Your task to perform on an android device: How do I get to the nearest grocery store? Image 0: 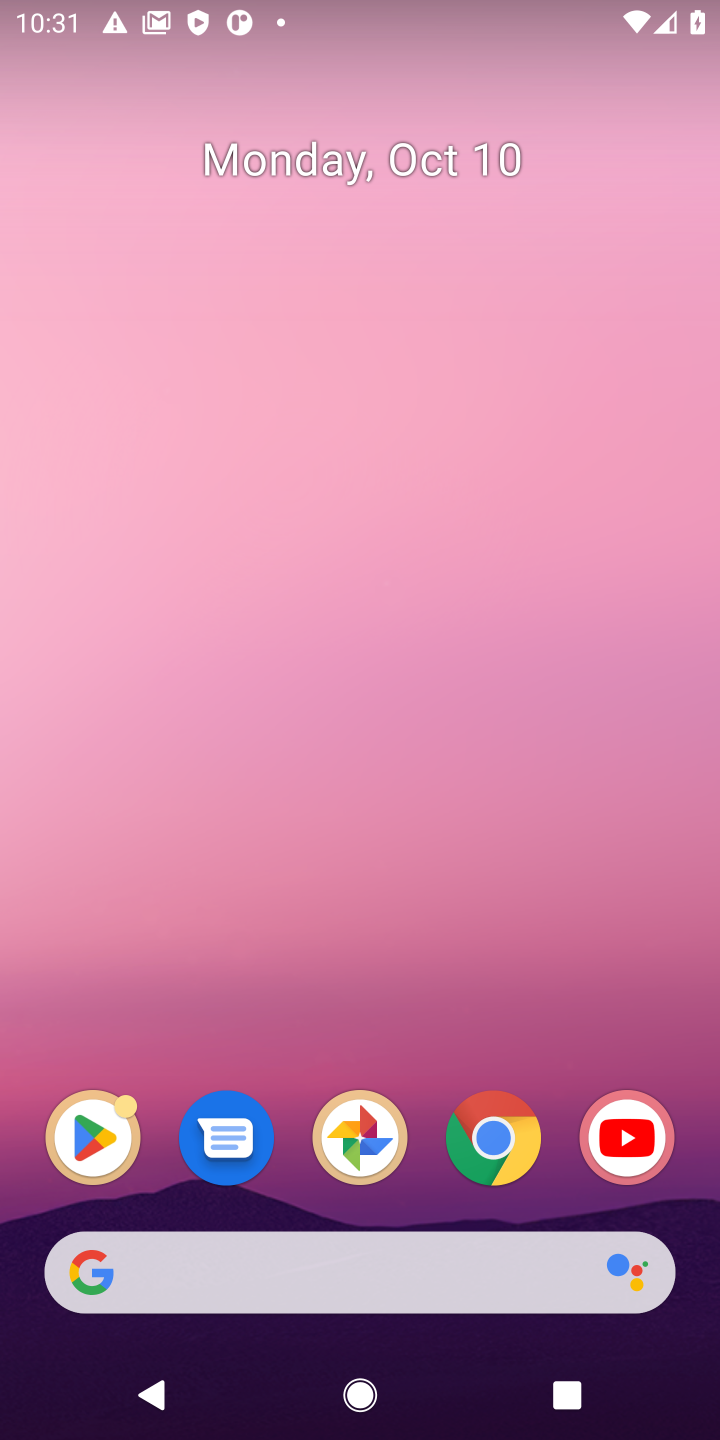
Step 0: click (259, 1245)
Your task to perform on an android device: How do I get to the nearest grocery store? Image 1: 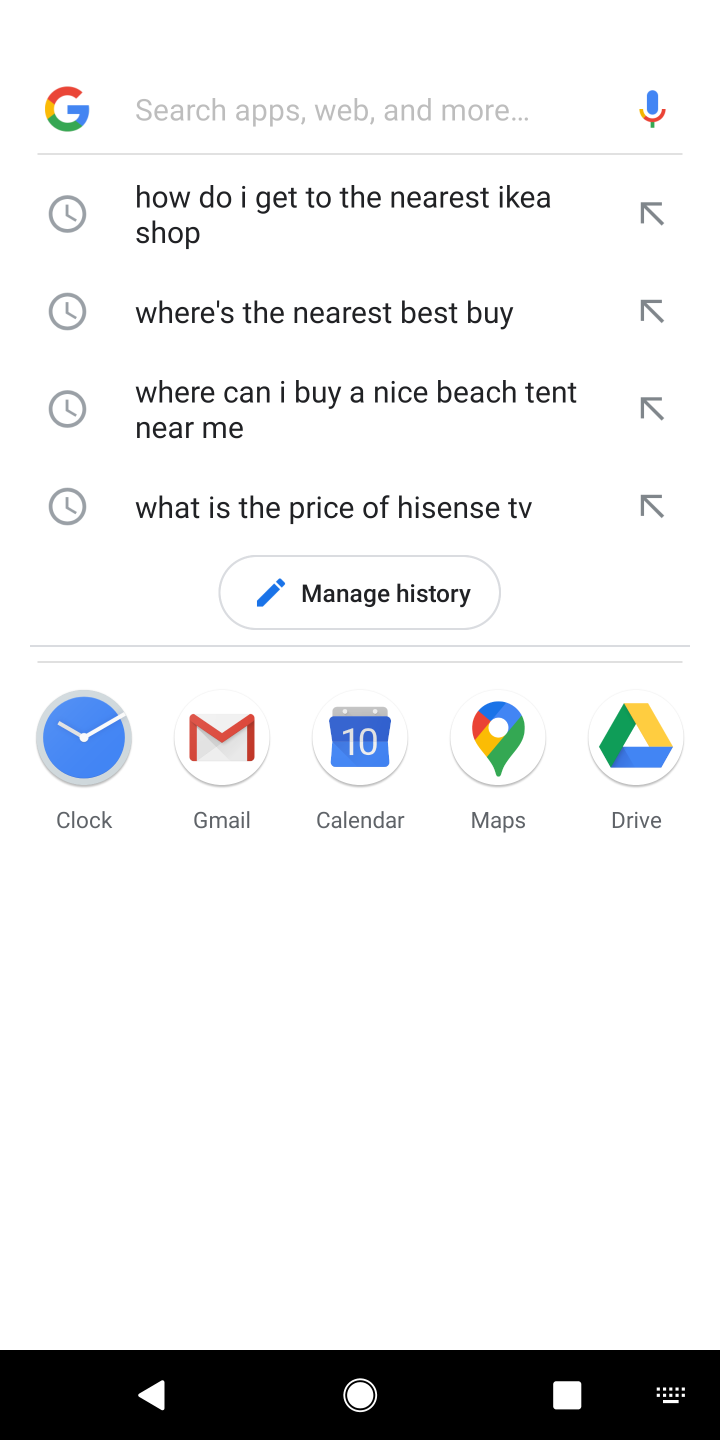
Step 1: type "How do I get to the nearest grocery store?"
Your task to perform on an android device: How do I get to the nearest grocery store? Image 2: 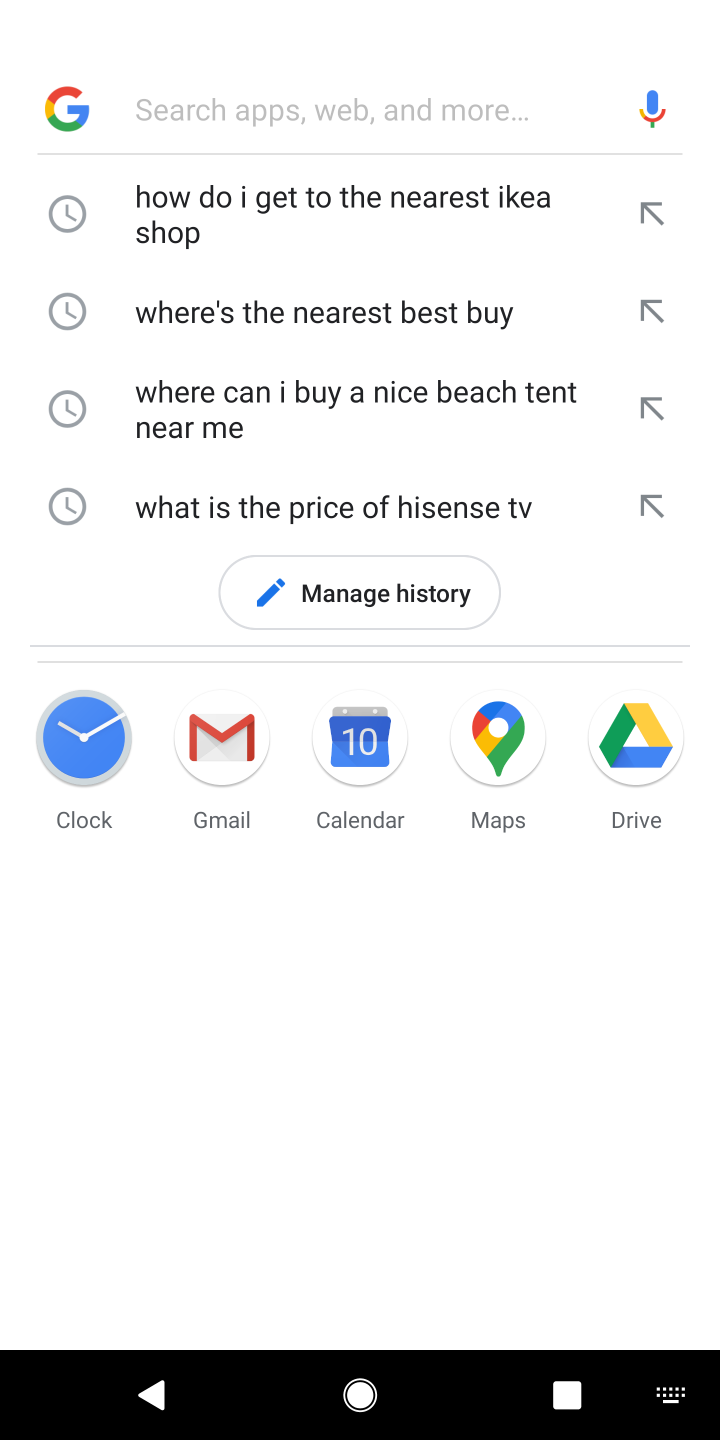
Step 2: click (297, 642)
Your task to perform on an android device: How do I get to the nearest grocery store? Image 3: 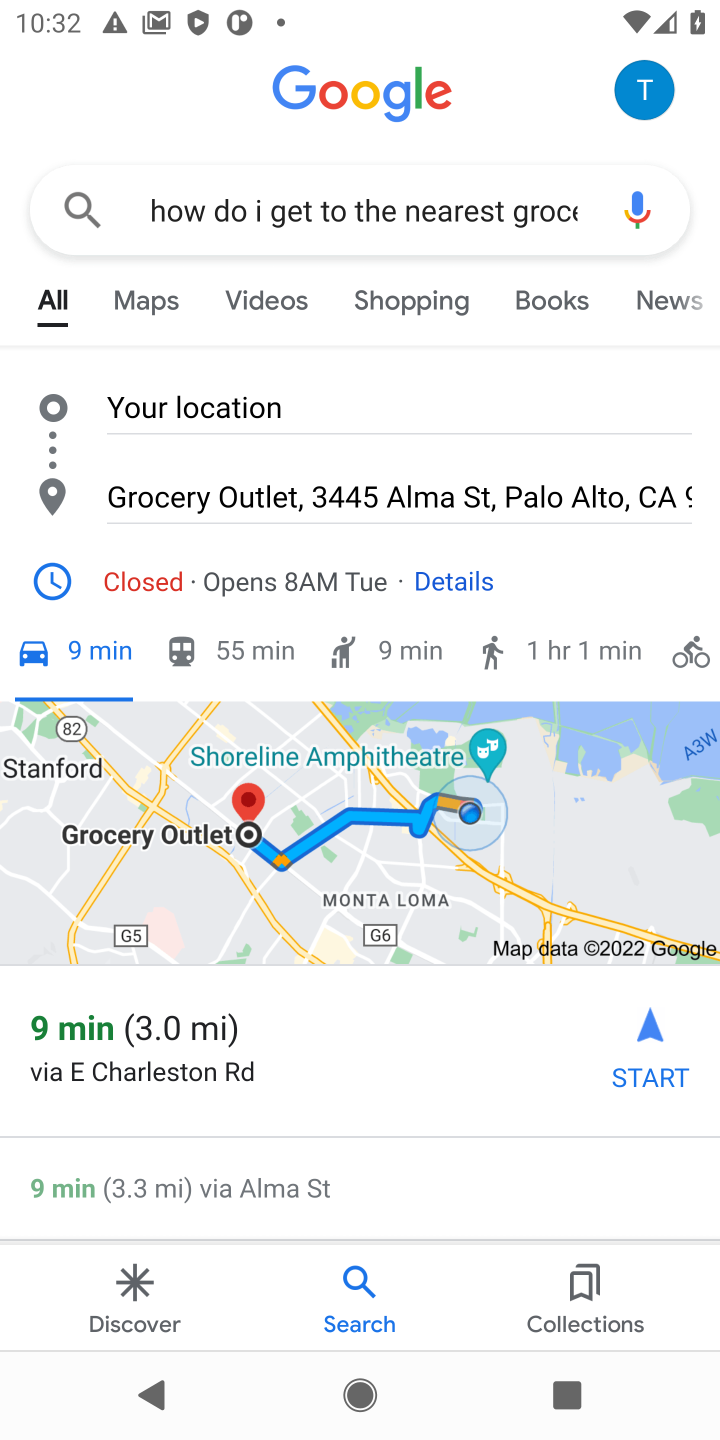
Step 3: task complete